Your task to perform on an android device: move an email to a new category in the gmail app Image 0: 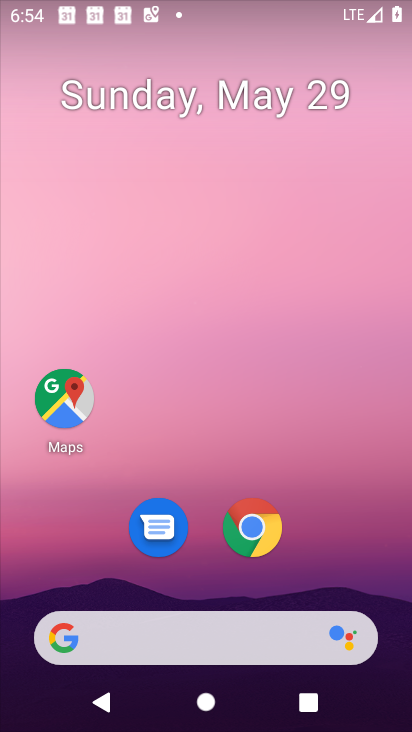
Step 0: drag from (329, 571) to (298, 99)
Your task to perform on an android device: move an email to a new category in the gmail app Image 1: 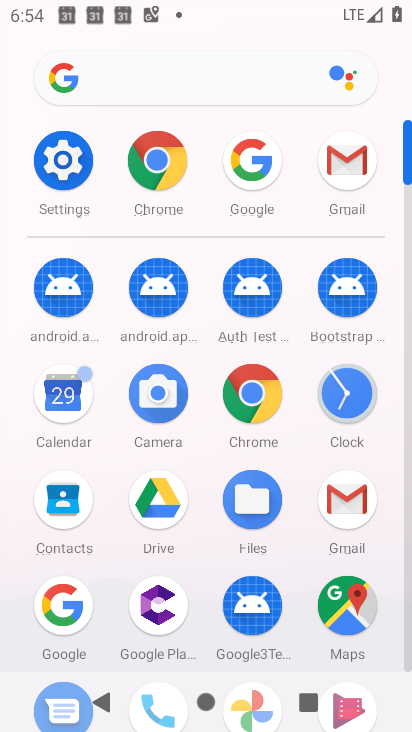
Step 1: click (353, 499)
Your task to perform on an android device: move an email to a new category in the gmail app Image 2: 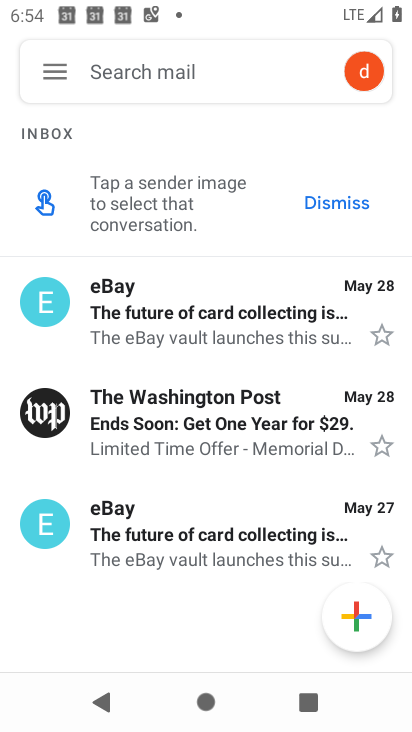
Step 2: task complete